Your task to perform on an android device: Check the news Image 0: 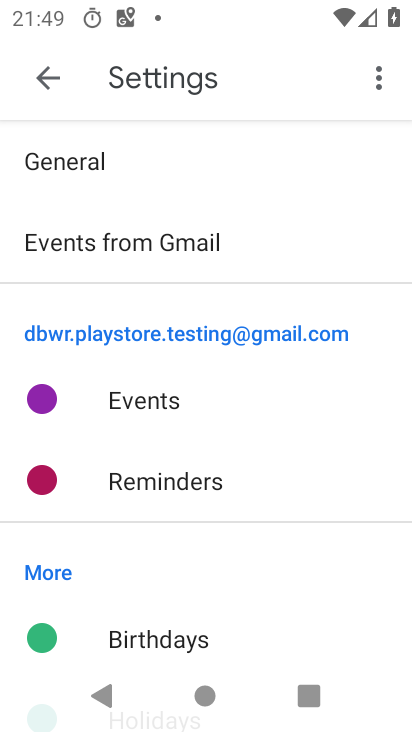
Step 0: press home button
Your task to perform on an android device: Check the news Image 1: 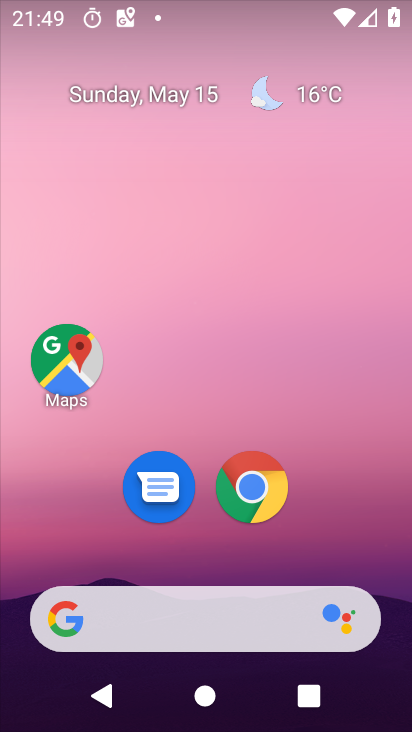
Step 1: drag from (391, 407) to (371, 216)
Your task to perform on an android device: Check the news Image 2: 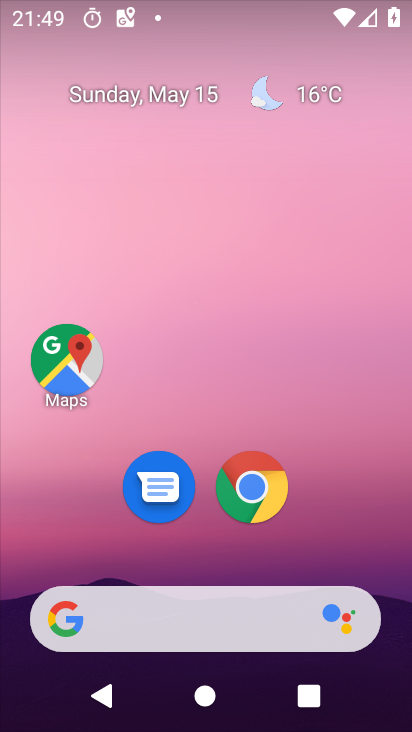
Step 2: drag from (384, 601) to (377, 213)
Your task to perform on an android device: Check the news Image 3: 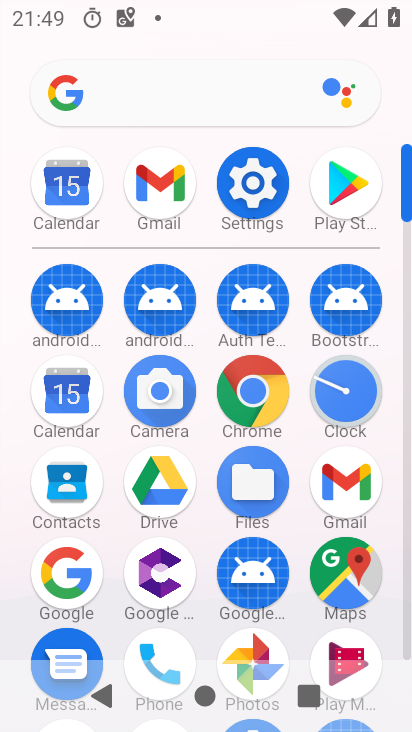
Step 3: click (56, 576)
Your task to perform on an android device: Check the news Image 4: 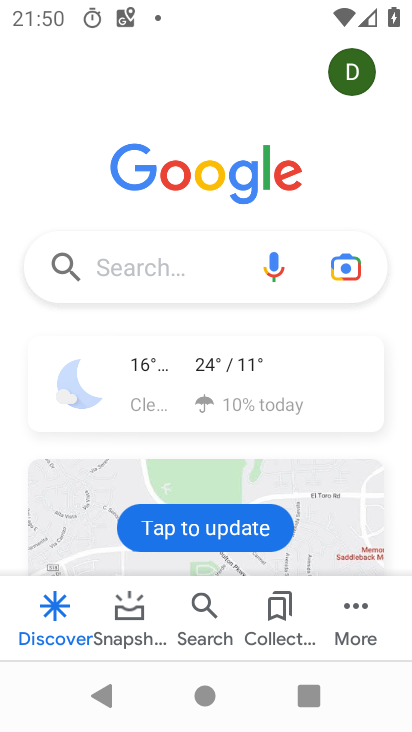
Step 4: task complete